Your task to perform on an android device: turn on data saver in the chrome app Image 0: 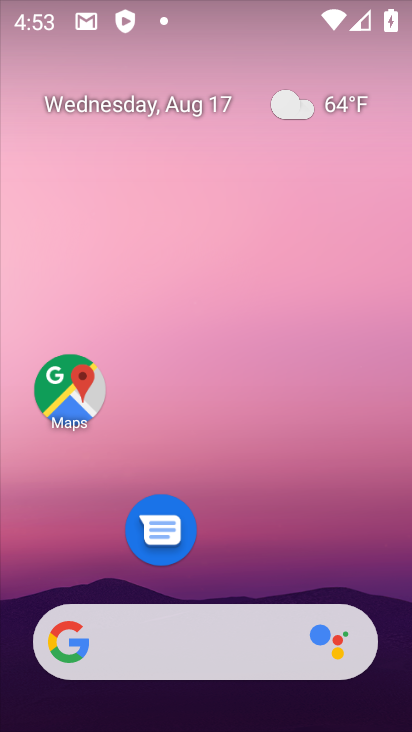
Step 0: drag from (206, 573) to (208, 113)
Your task to perform on an android device: turn on data saver in the chrome app Image 1: 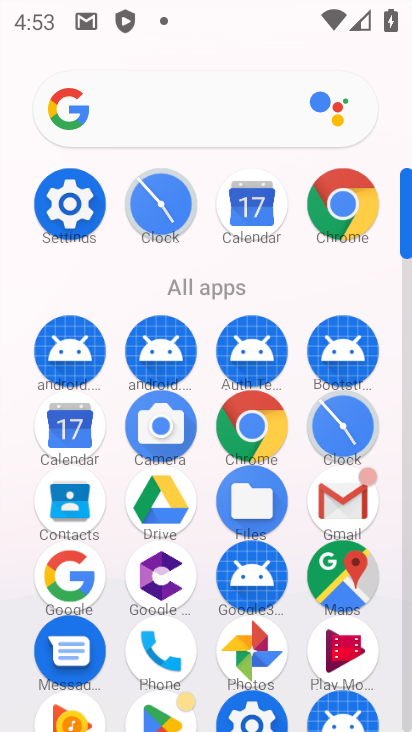
Step 1: click (347, 198)
Your task to perform on an android device: turn on data saver in the chrome app Image 2: 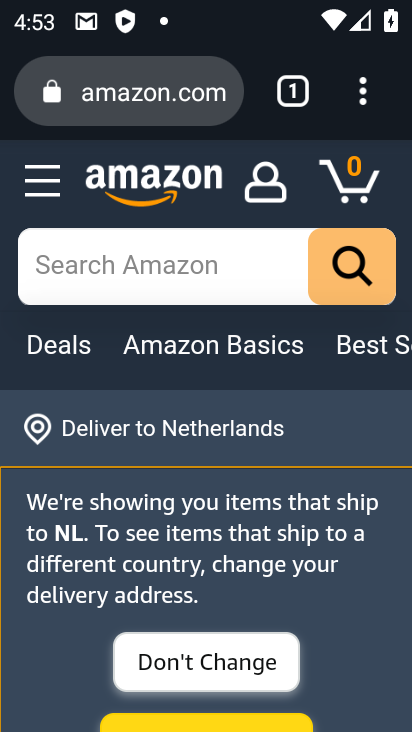
Step 2: click (363, 99)
Your task to perform on an android device: turn on data saver in the chrome app Image 3: 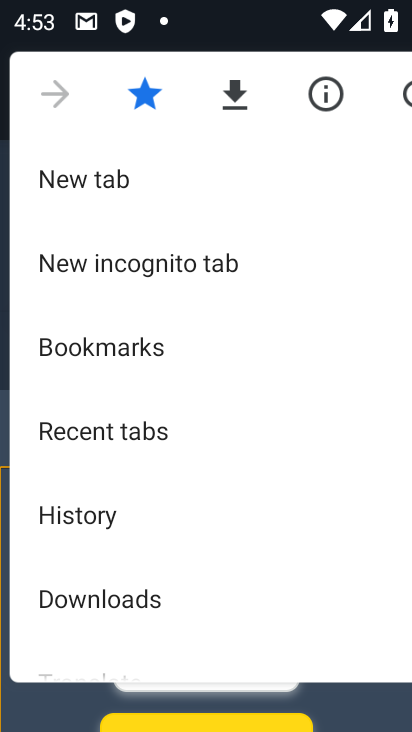
Step 3: drag from (171, 616) to (153, 288)
Your task to perform on an android device: turn on data saver in the chrome app Image 4: 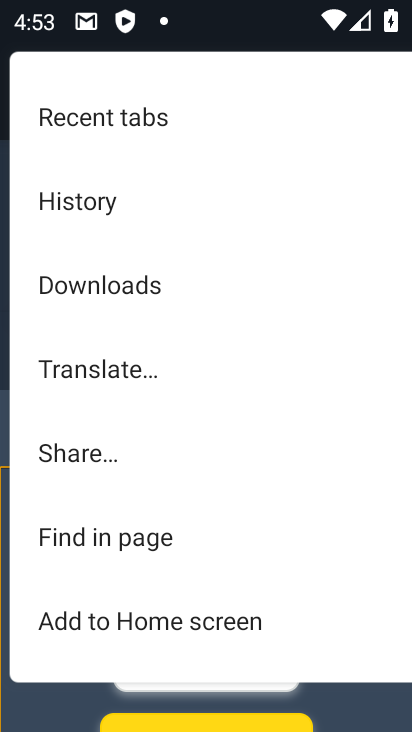
Step 4: drag from (178, 615) to (150, 190)
Your task to perform on an android device: turn on data saver in the chrome app Image 5: 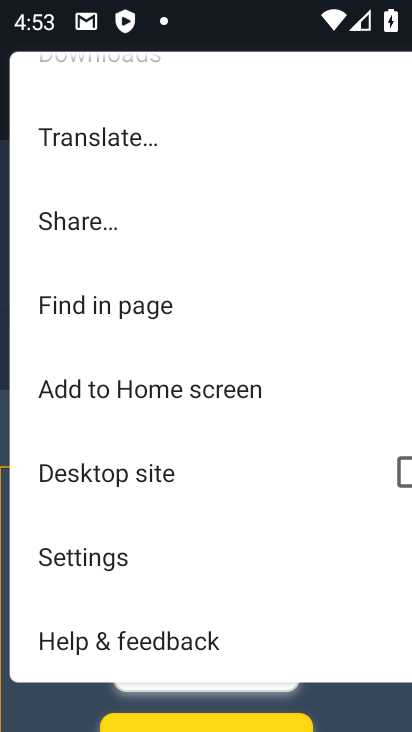
Step 5: click (94, 558)
Your task to perform on an android device: turn on data saver in the chrome app Image 6: 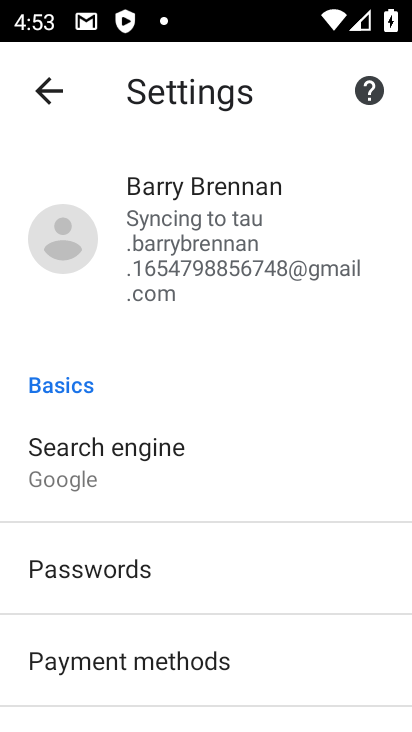
Step 6: drag from (171, 602) to (171, 312)
Your task to perform on an android device: turn on data saver in the chrome app Image 7: 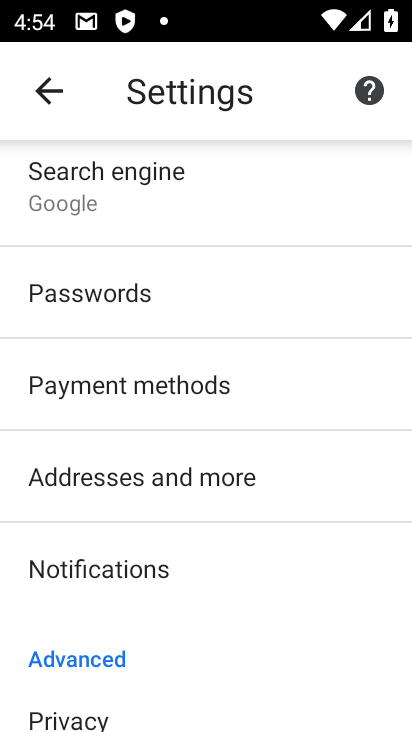
Step 7: click (191, 301)
Your task to perform on an android device: turn on data saver in the chrome app Image 8: 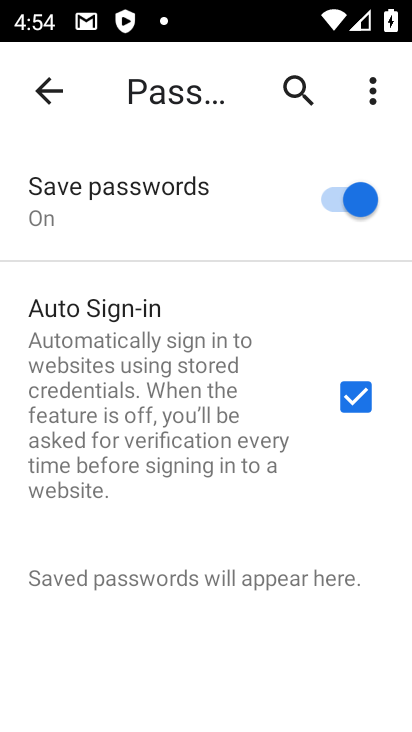
Step 8: click (48, 96)
Your task to perform on an android device: turn on data saver in the chrome app Image 9: 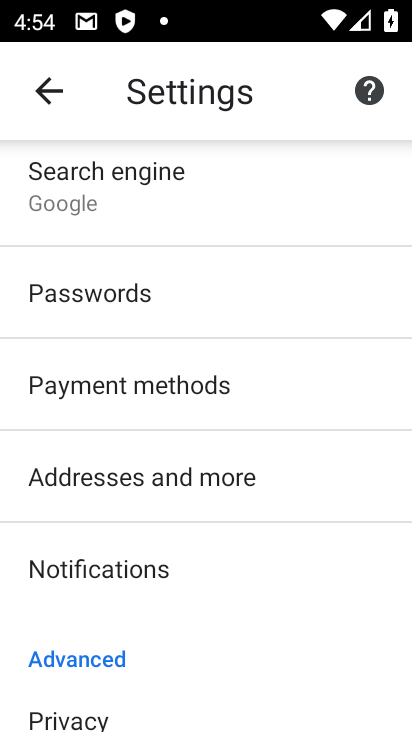
Step 9: drag from (153, 561) to (177, 377)
Your task to perform on an android device: turn on data saver in the chrome app Image 10: 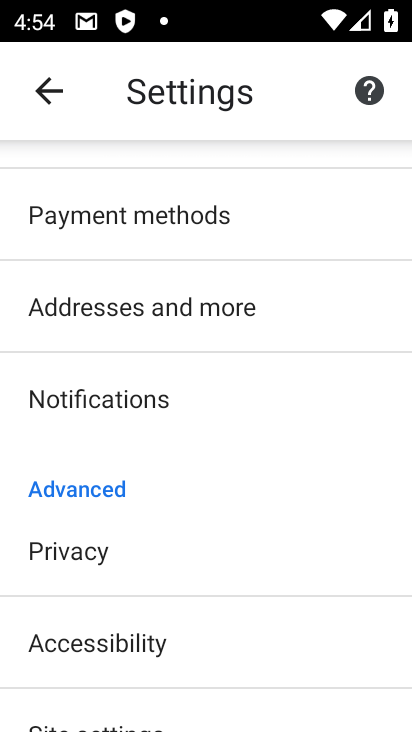
Step 10: drag from (151, 675) to (156, 396)
Your task to perform on an android device: turn on data saver in the chrome app Image 11: 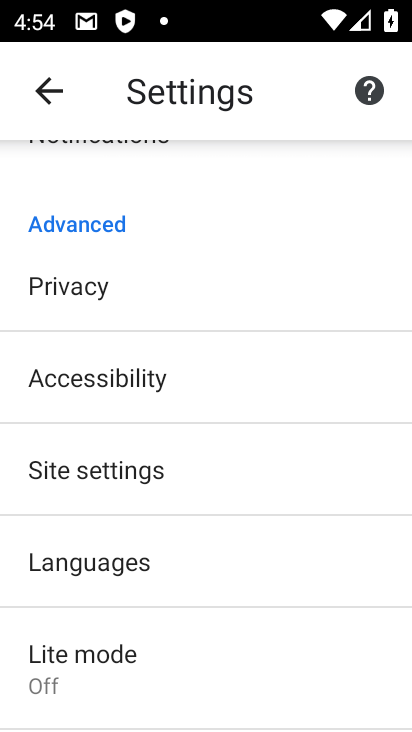
Step 11: click (83, 468)
Your task to perform on an android device: turn on data saver in the chrome app Image 12: 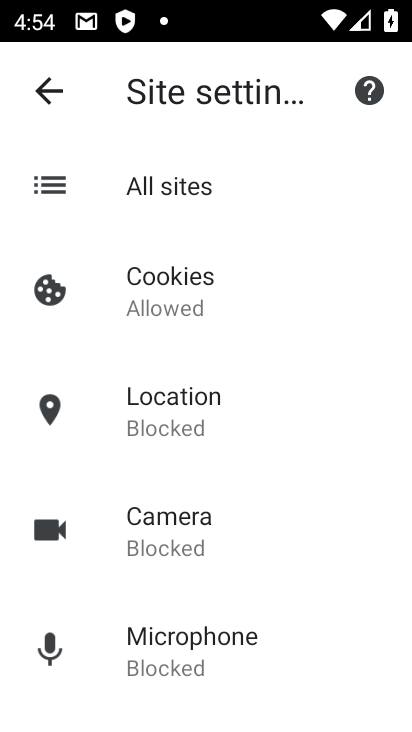
Step 12: click (44, 92)
Your task to perform on an android device: turn on data saver in the chrome app Image 13: 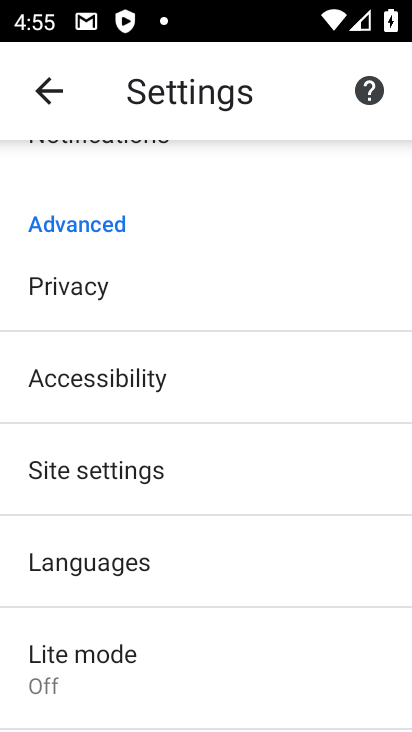
Step 13: click (95, 661)
Your task to perform on an android device: turn on data saver in the chrome app Image 14: 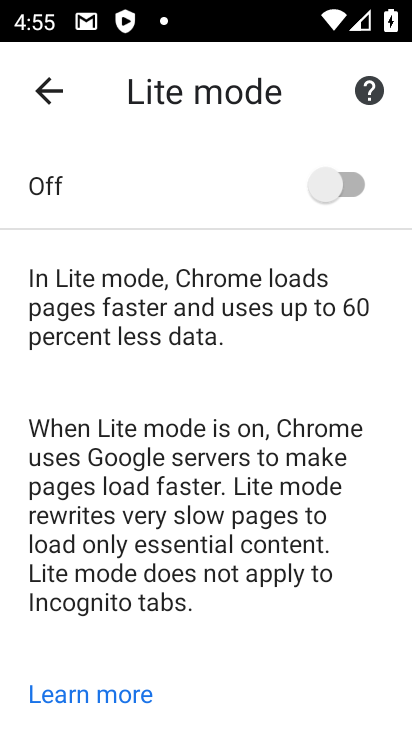
Step 14: click (355, 180)
Your task to perform on an android device: turn on data saver in the chrome app Image 15: 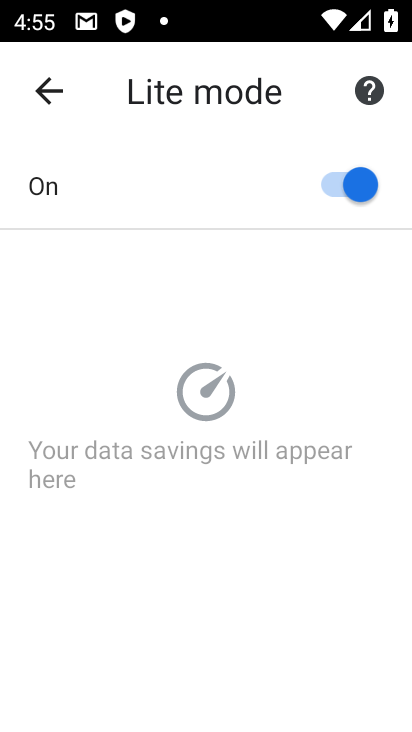
Step 15: task complete